Your task to perform on an android device: Search for hotels in Sydney Image 0: 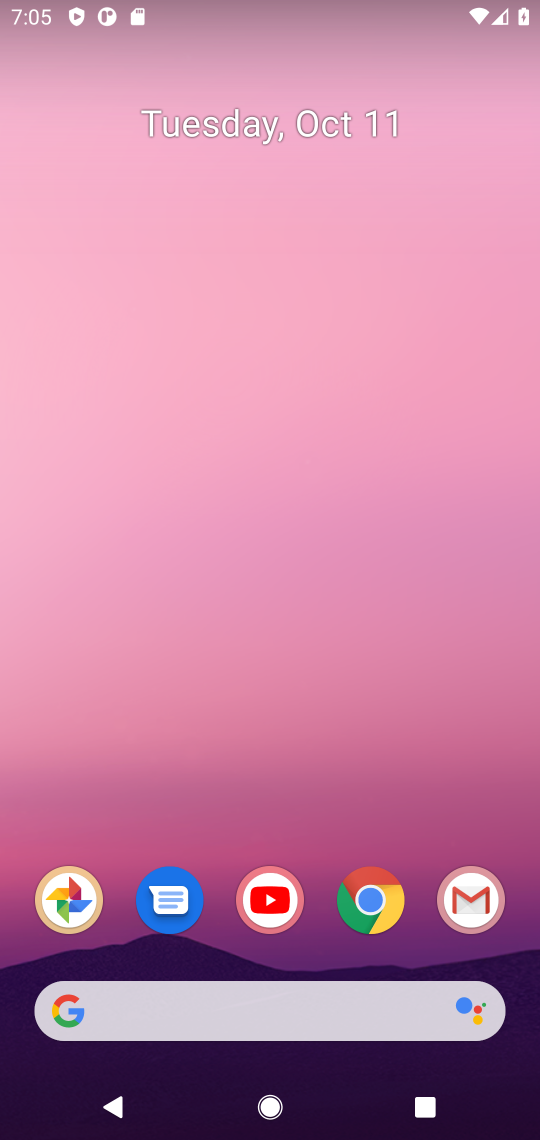
Step 0: click (393, 887)
Your task to perform on an android device: Search for hotels in Sydney Image 1: 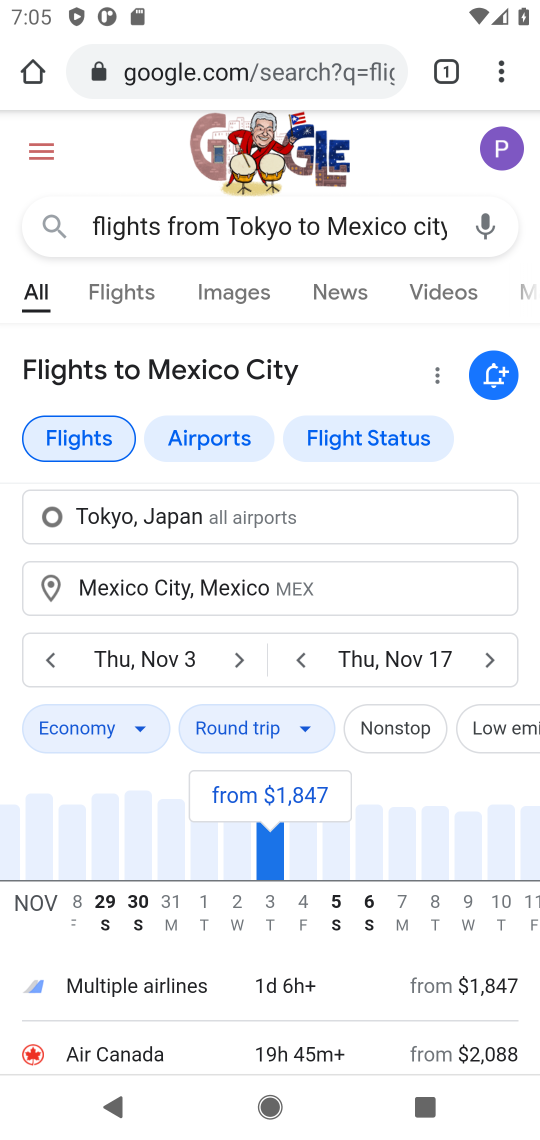
Step 1: click (301, 69)
Your task to perform on an android device: Search for hotels in Sydney Image 2: 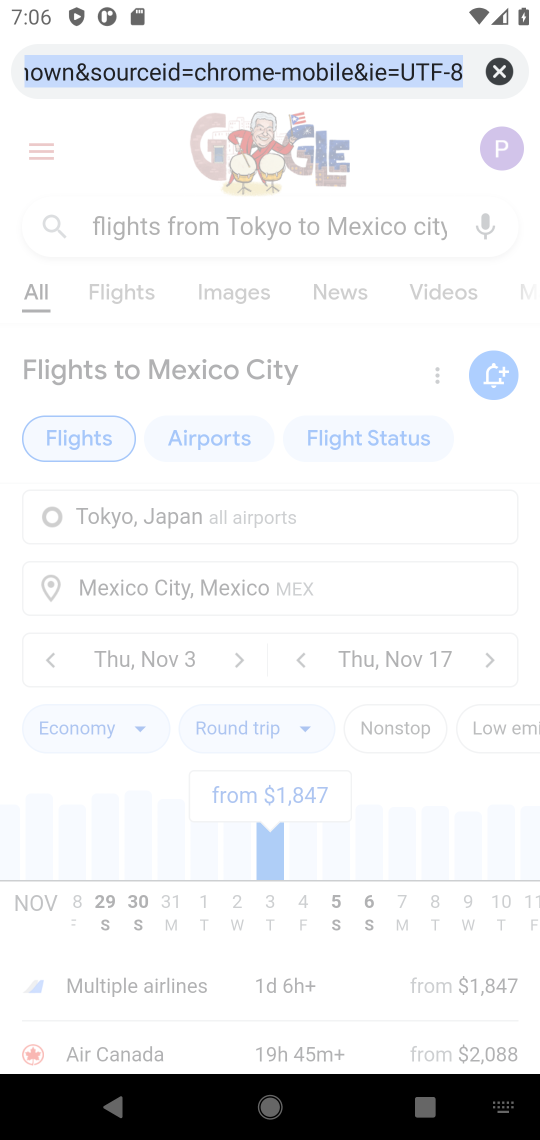
Step 2: type "hotels in  sydney"
Your task to perform on an android device: Search for hotels in Sydney Image 3: 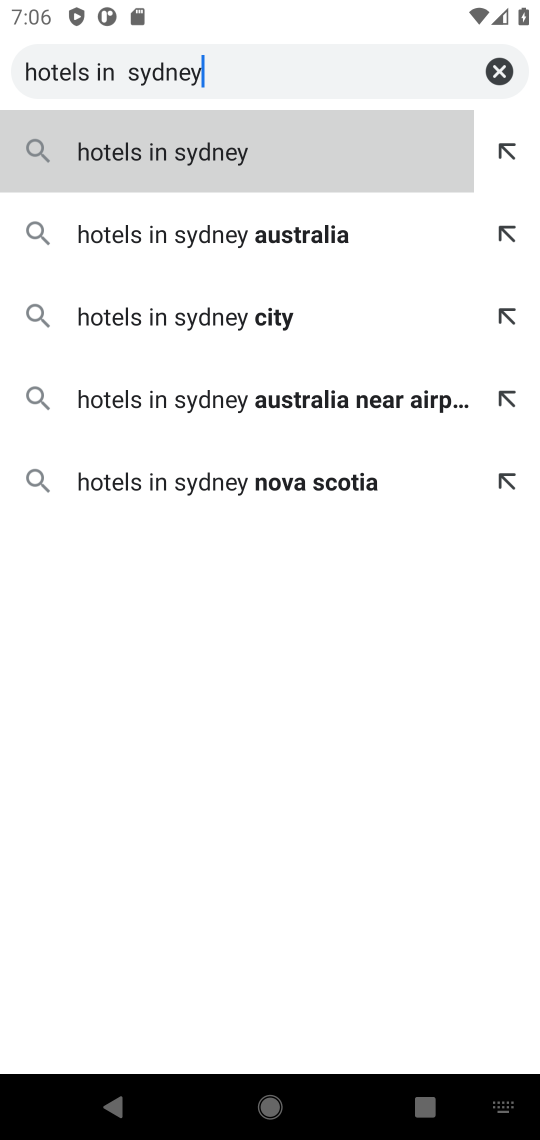
Step 3: click (246, 158)
Your task to perform on an android device: Search for hotels in Sydney Image 4: 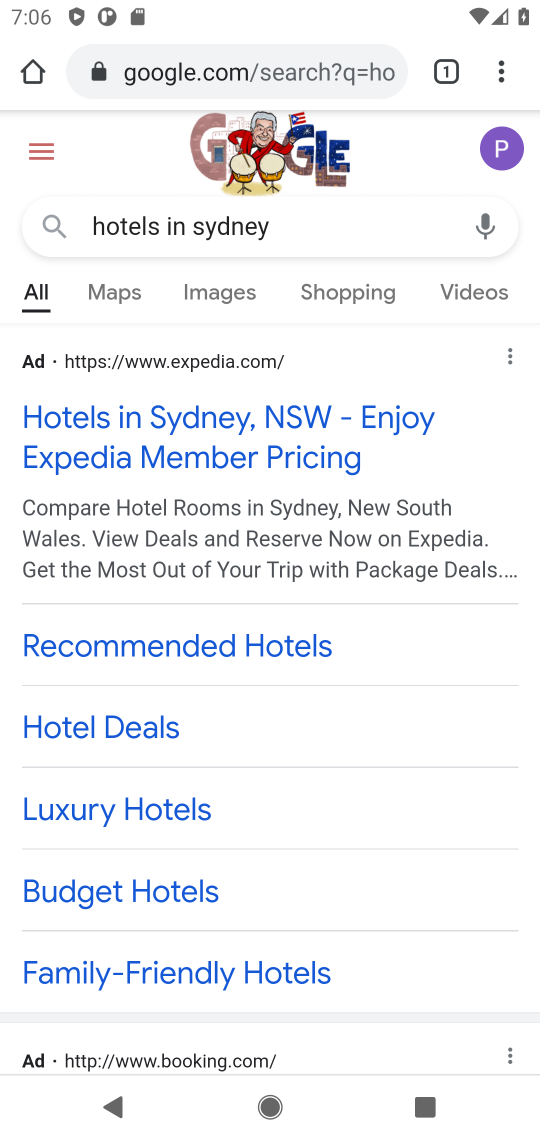
Step 4: drag from (505, 708) to (459, 281)
Your task to perform on an android device: Search for hotels in Sydney Image 5: 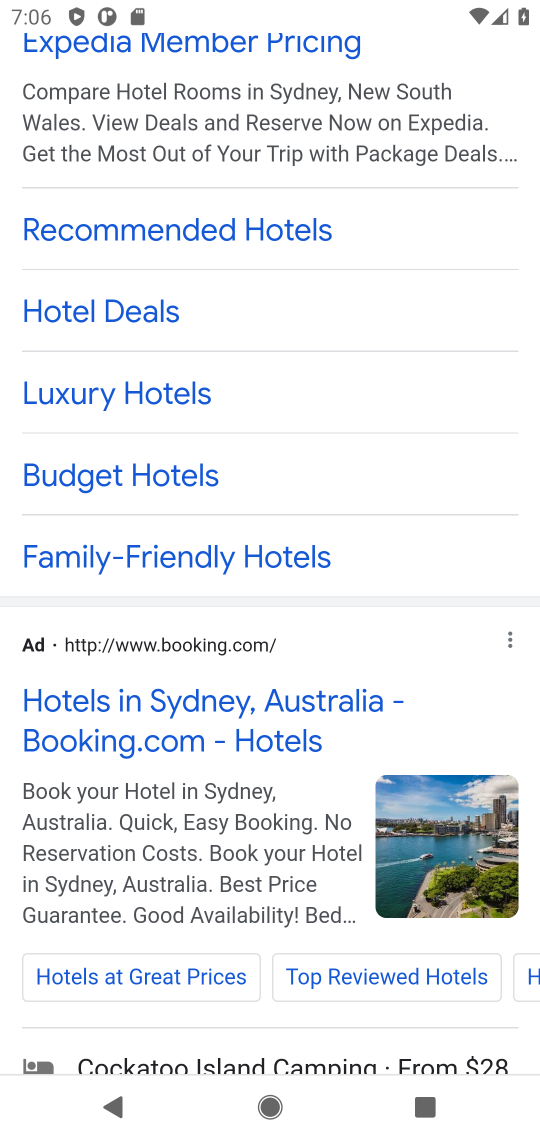
Step 5: click (306, 712)
Your task to perform on an android device: Search for hotels in Sydney Image 6: 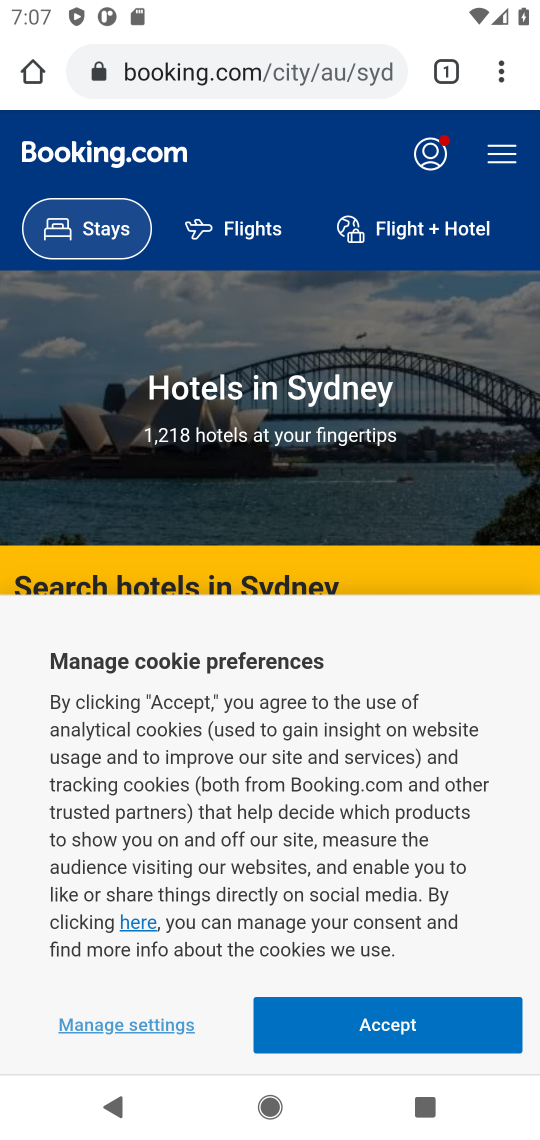
Step 6: click (340, 1020)
Your task to perform on an android device: Search for hotels in Sydney Image 7: 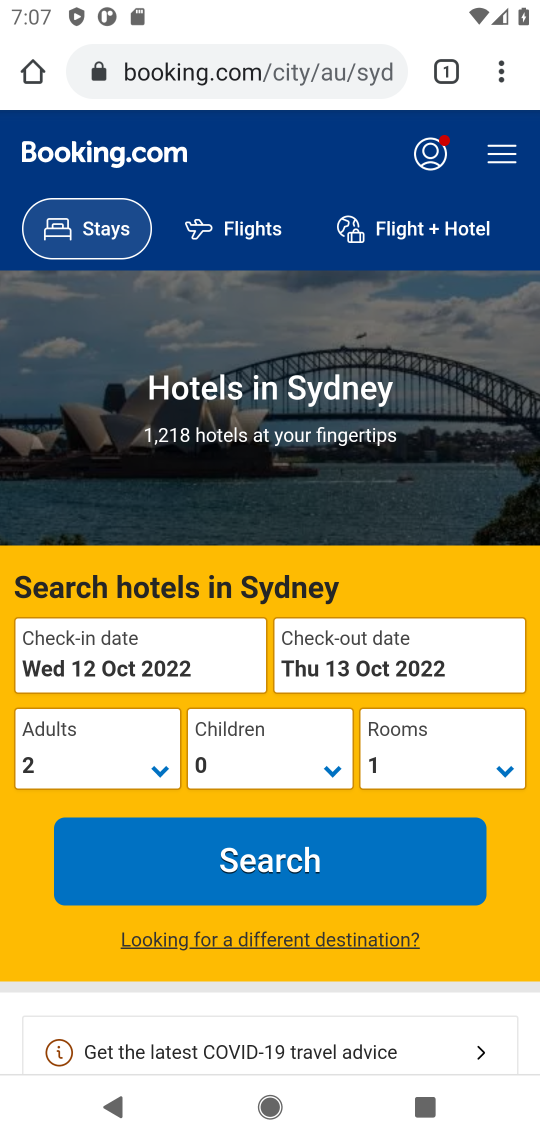
Step 7: task complete